Your task to perform on an android device: turn on the 12-hour format for clock Image 0: 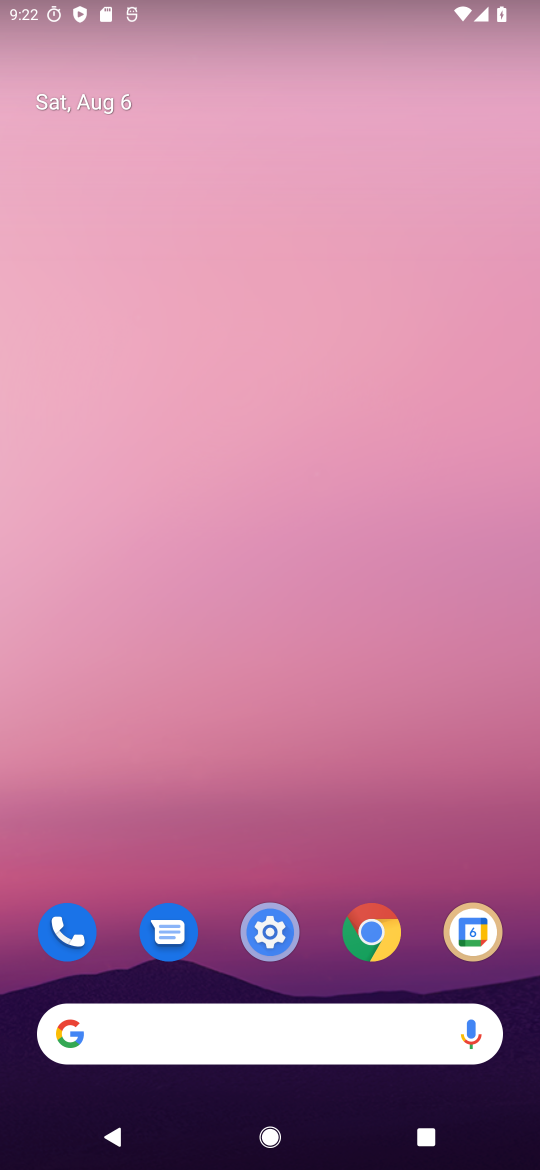
Step 0: press home button
Your task to perform on an android device: turn on the 12-hour format for clock Image 1: 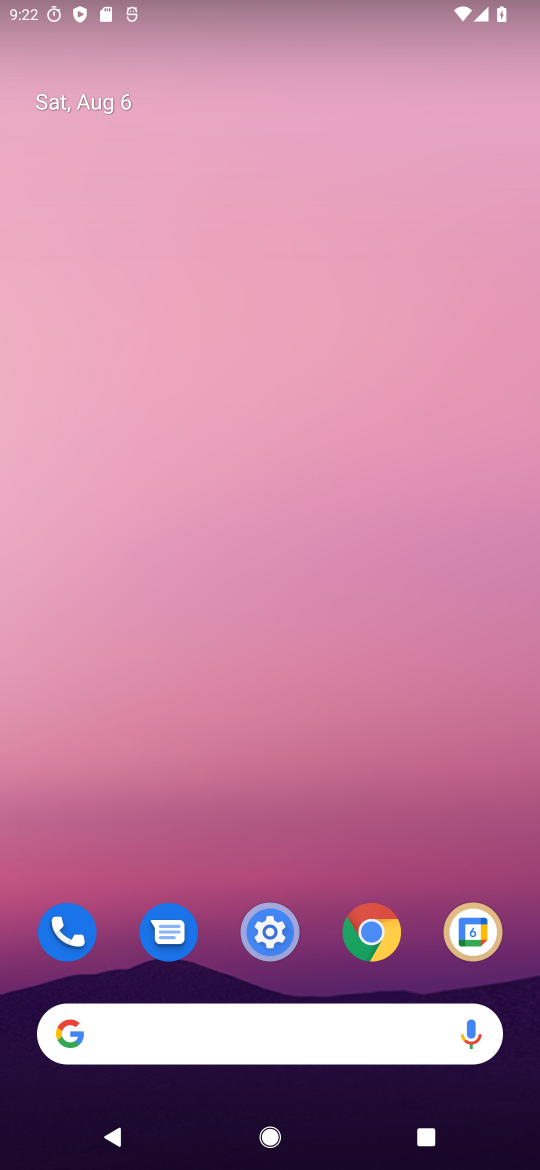
Step 1: drag from (205, 1037) to (287, 273)
Your task to perform on an android device: turn on the 12-hour format for clock Image 2: 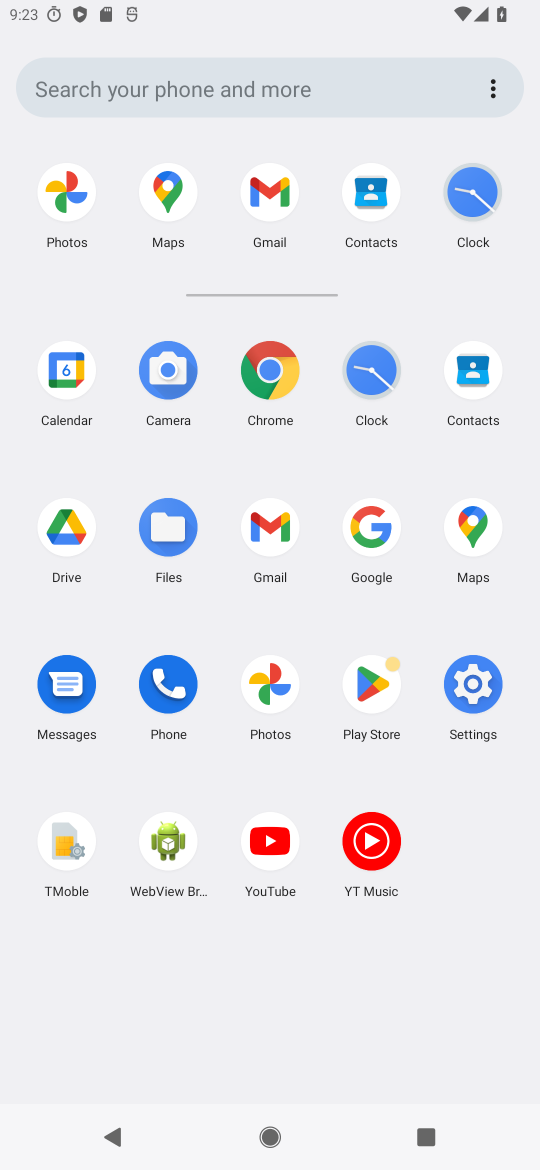
Step 2: click (372, 374)
Your task to perform on an android device: turn on the 12-hour format for clock Image 3: 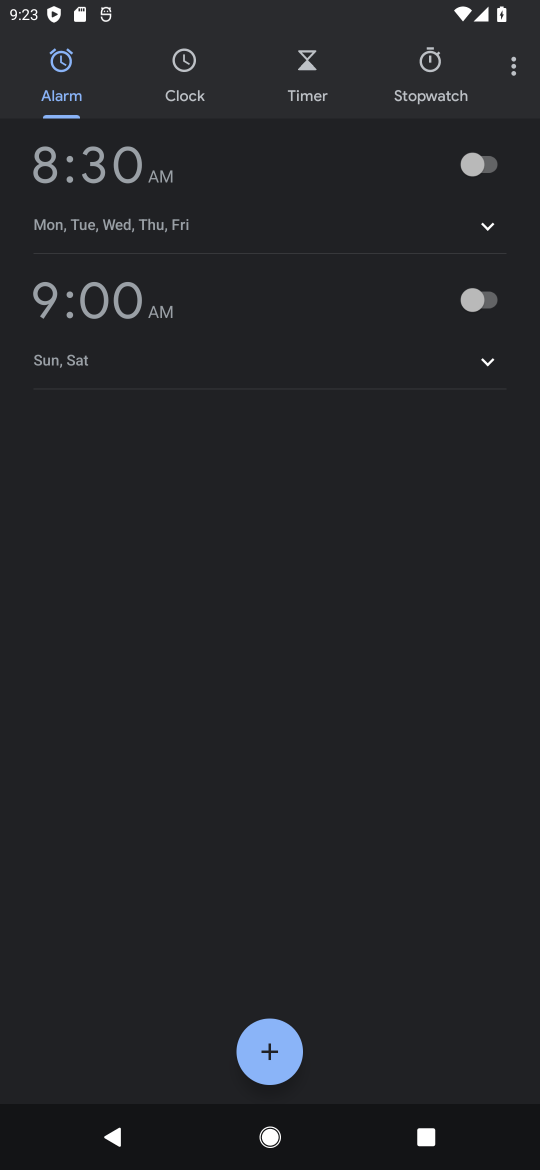
Step 3: click (517, 68)
Your task to perform on an android device: turn on the 12-hour format for clock Image 4: 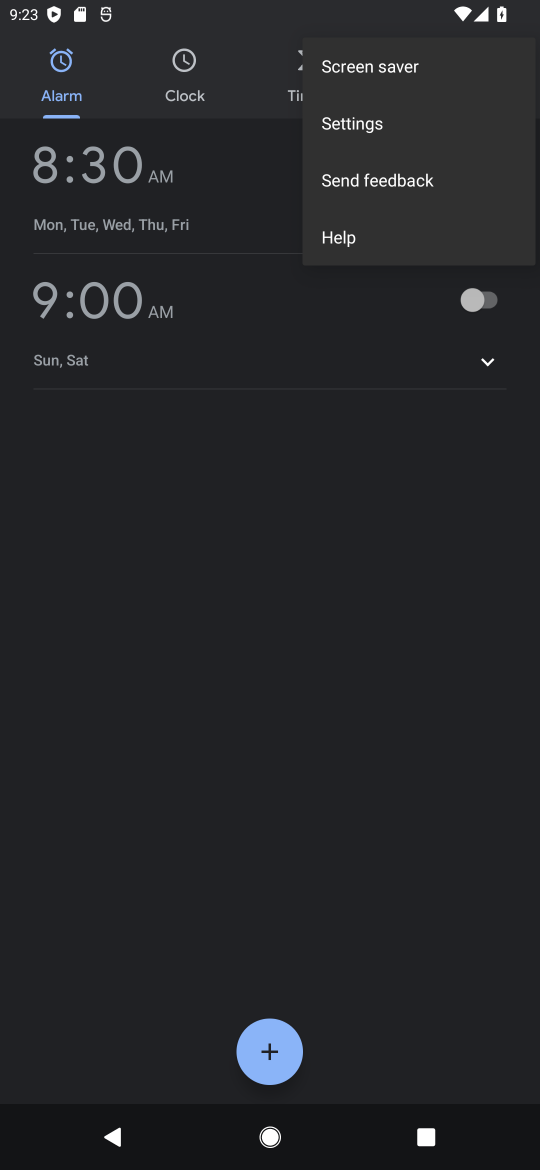
Step 4: click (334, 129)
Your task to perform on an android device: turn on the 12-hour format for clock Image 5: 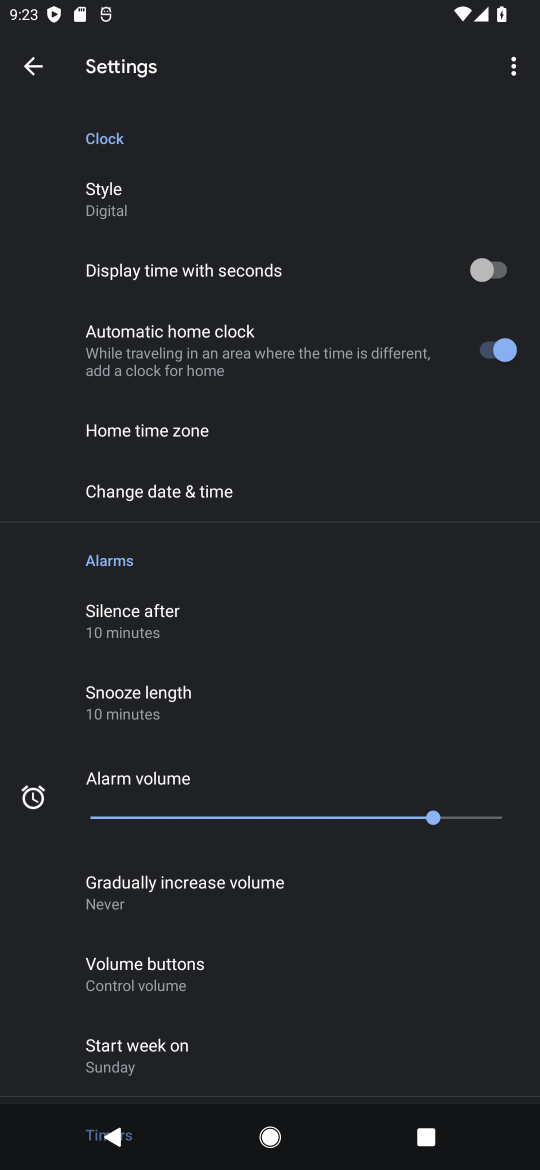
Step 5: click (148, 489)
Your task to perform on an android device: turn on the 12-hour format for clock Image 6: 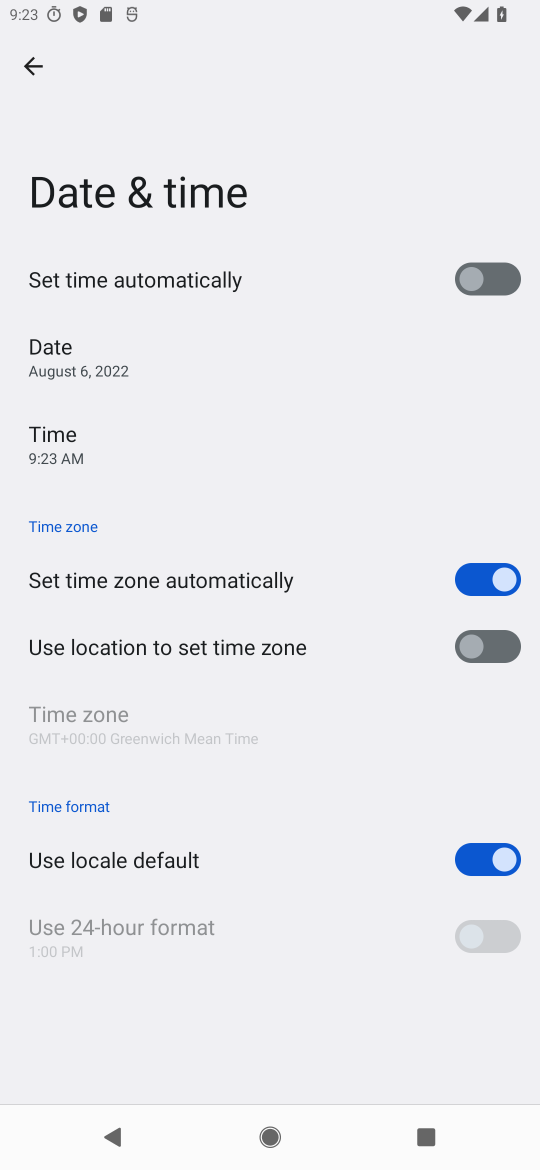
Step 6: task complete